Your task to perform on an android device: open the mobile data screen to see how much data has been used Image 0: 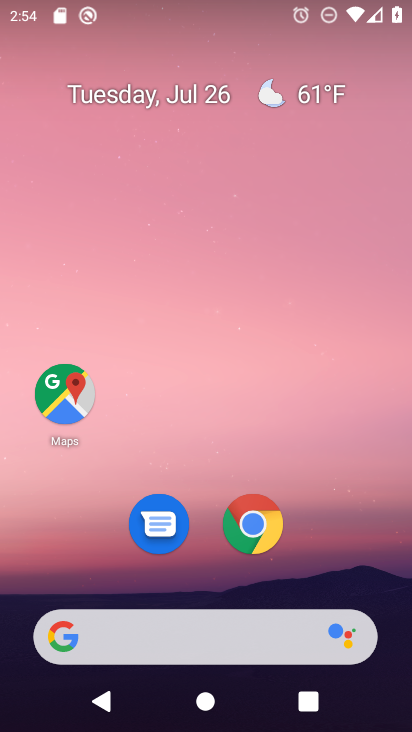
Step 0: drag from (160, 629) to (264, 117)
Your task to perform on an android device: open the mobile data screen to see how much data has been used Image 1: 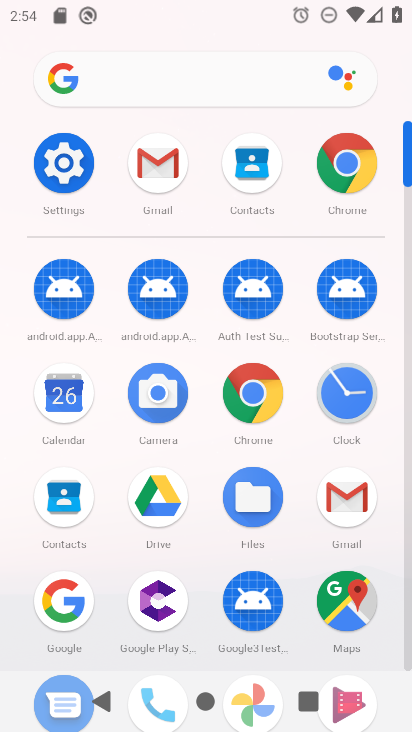
Step 1: click (59, 160)
Your task to perform on an android device: open the mobile data screen to see how much data has been used Image 2: 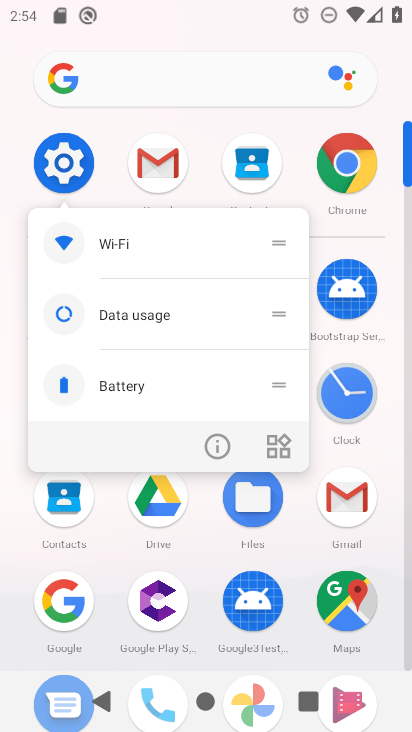
Step 2: click (67, 167)
Your task to perform on an android device: open the mobile data screen to see how much data has been used Image 3: 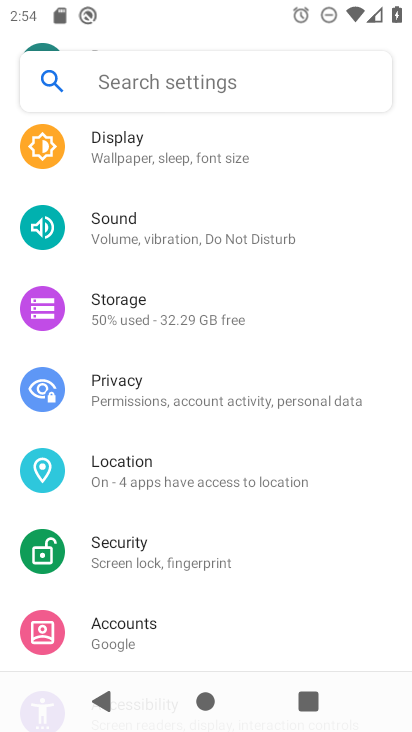
Step 3: drag from (321, 175) to (278, 623)
Your task to perform on an android device: open the mobile data screen to see how much data has been used Image 4: 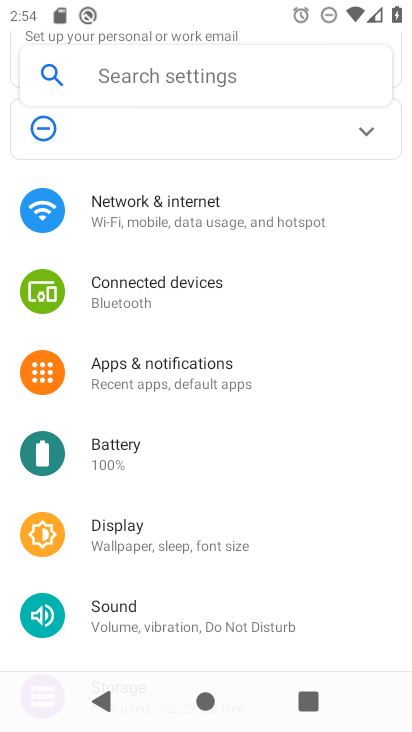
Step 4: click (196, 212)
Your task to perform on an android device: open the mobile data screen to see how much data has been used Image 5: 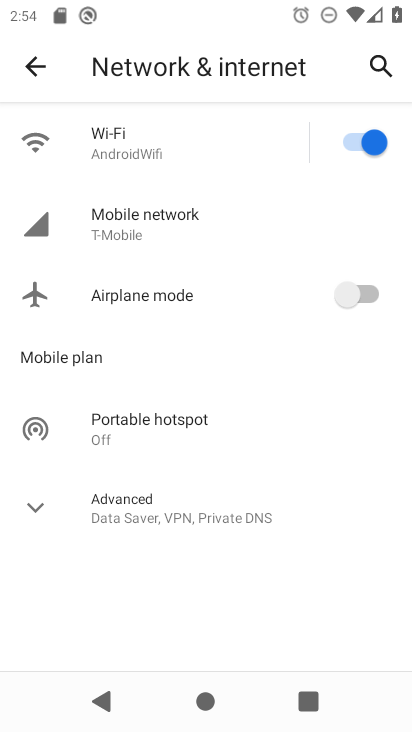
Step 5: click (182, 223)
Your task to perform on an android device: open the mobile data screen to see how much data has been used Image 6: 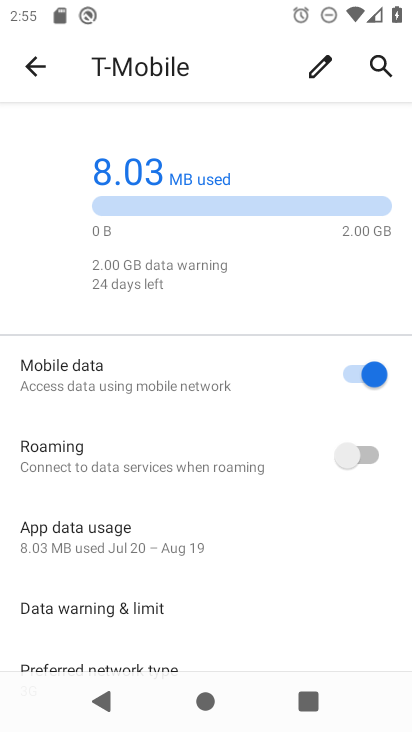
Step 6: task complete